Your task to perform on an android device: Show the shopping cart on newegg.com. Image 0: 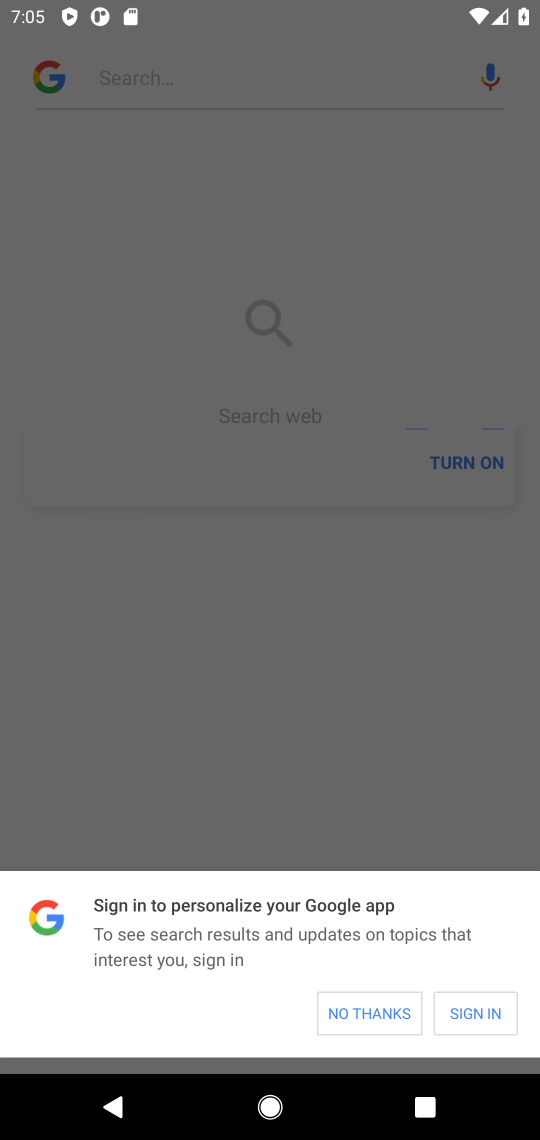
Step 0: click (352, 1010)
Your task to perform on an android device: Show the shopping cart on newegg.com. Image 1: 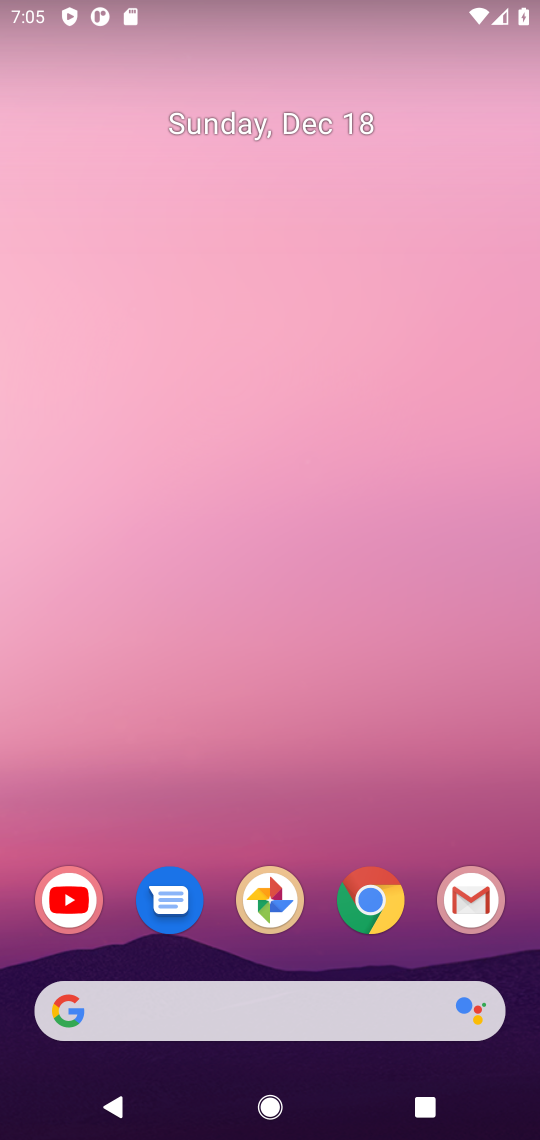
Step 1: click (370, 891)
Your task to perform on an android device: Show the shopping cart on newegg.com. Image 2: 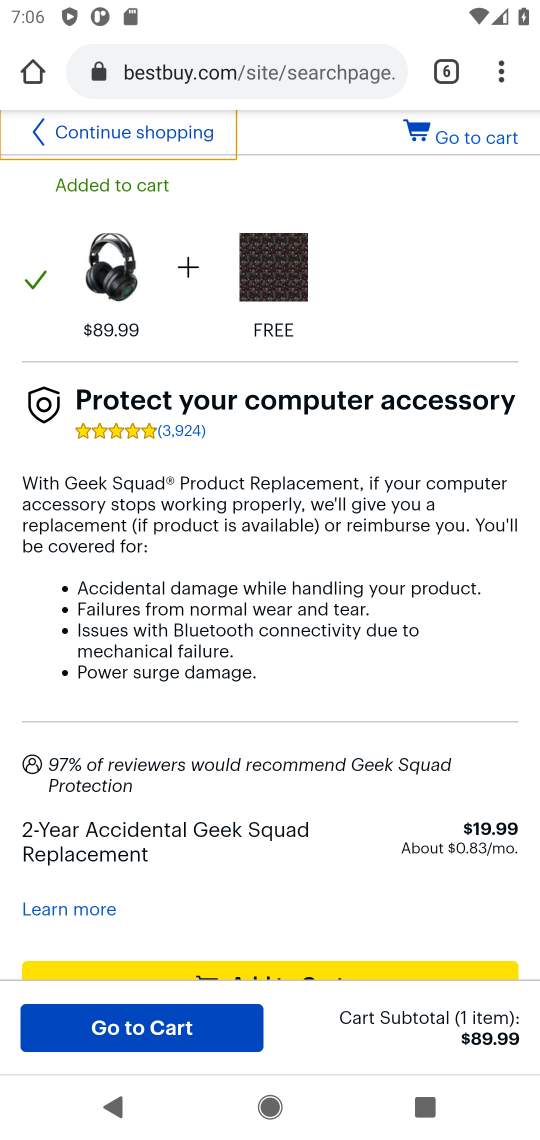
Step 2: click (445, 64)
Your task to perform on an android device: Show the shopping cart on newegg.com. Image 3: 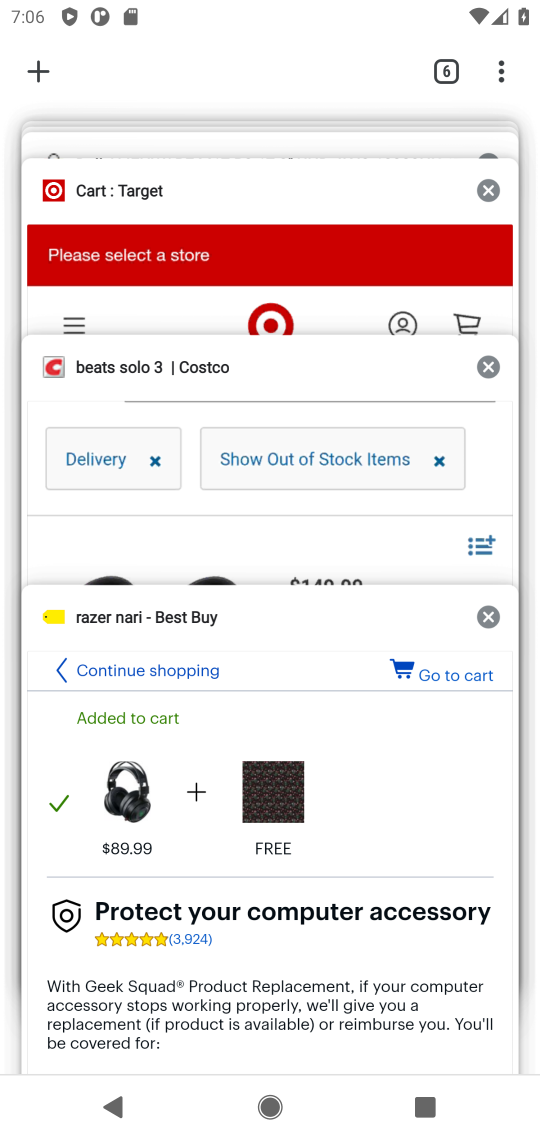
Step 3: drag from (211, 145) to (185, 556)
Your task to perform on an android device: Show the shopping cart on newegg.com. Image 4: 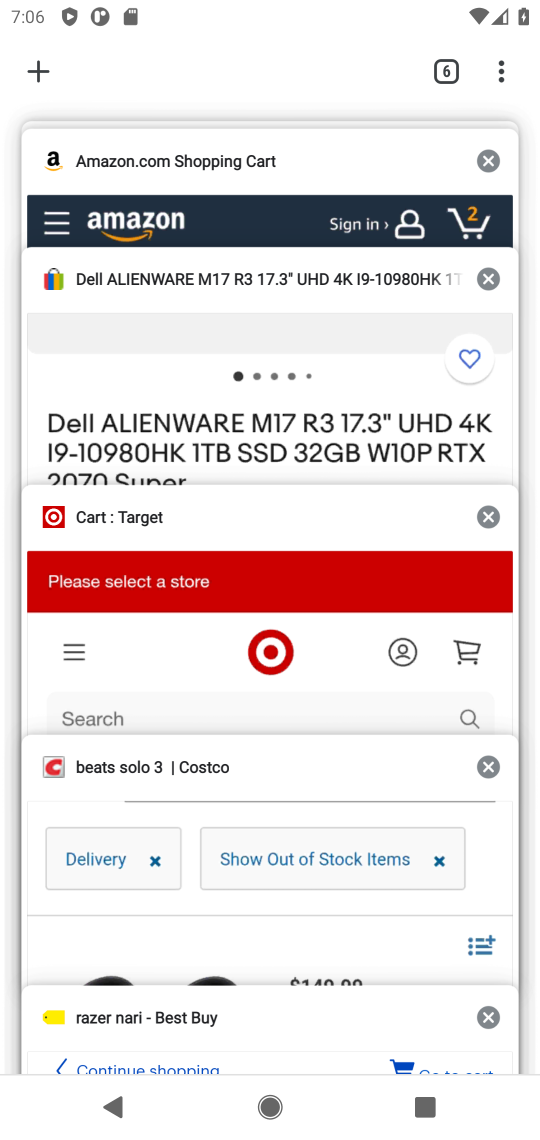
Step 4: drag from (222, 180) to (212, 613)
Your task to perform on an android device: Show the shopping cart on newegg.com. Image 5: 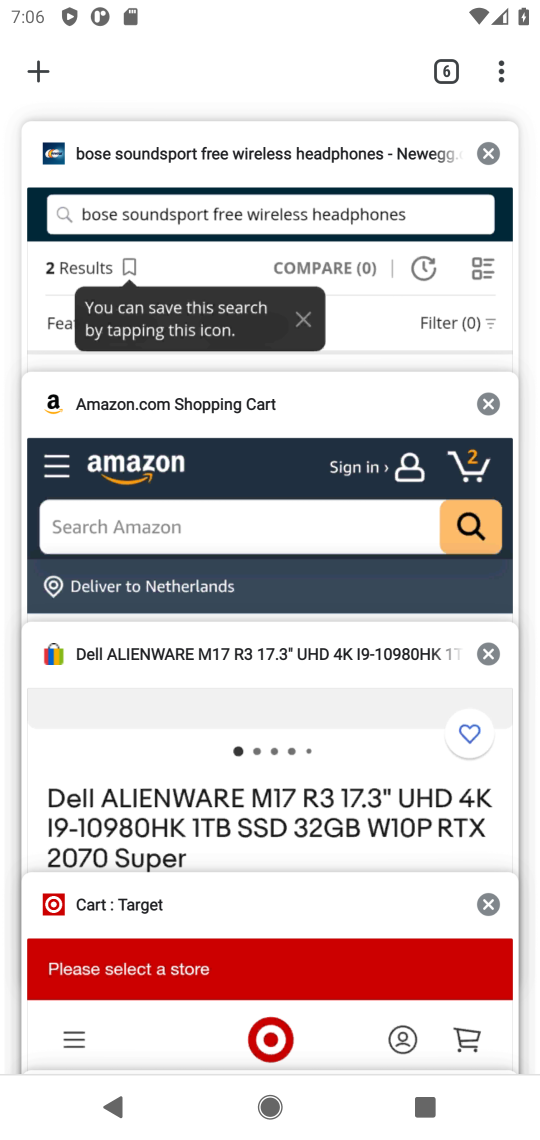
Step 5: click (221, 206)
Your task to perform on an android device: Show the shopping cart on newegg.com. Image 6: 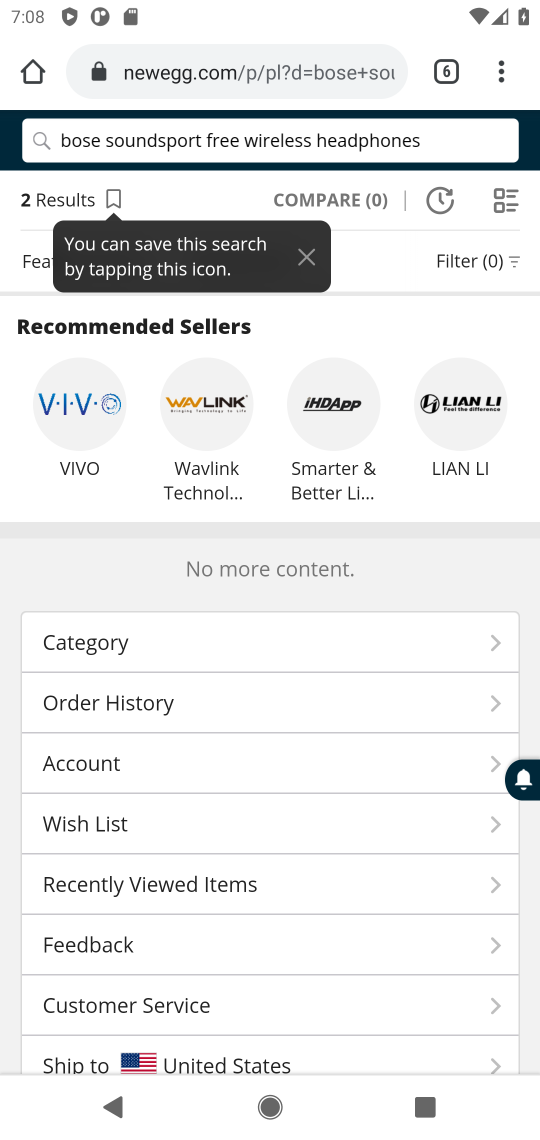
Step 6: drag from (398, 283) to (375, 899)
Your task to perform on an android device: Show the shopping cart on newegg.com. Image 7: 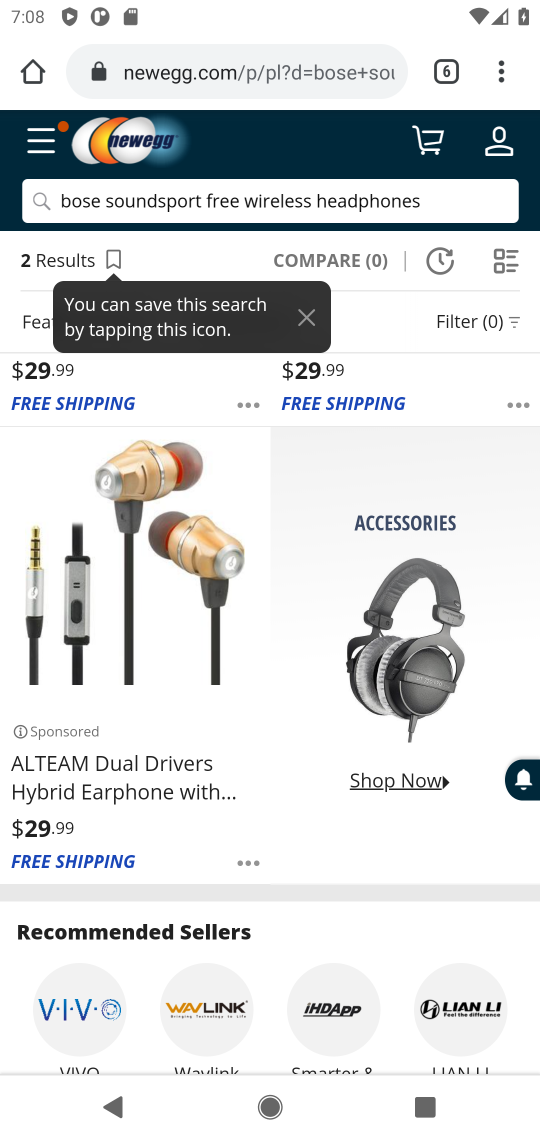
Step 7: click (425, 136)
Your task to perform on an android device: Show the shopping cart on newegg.com. Image 8: 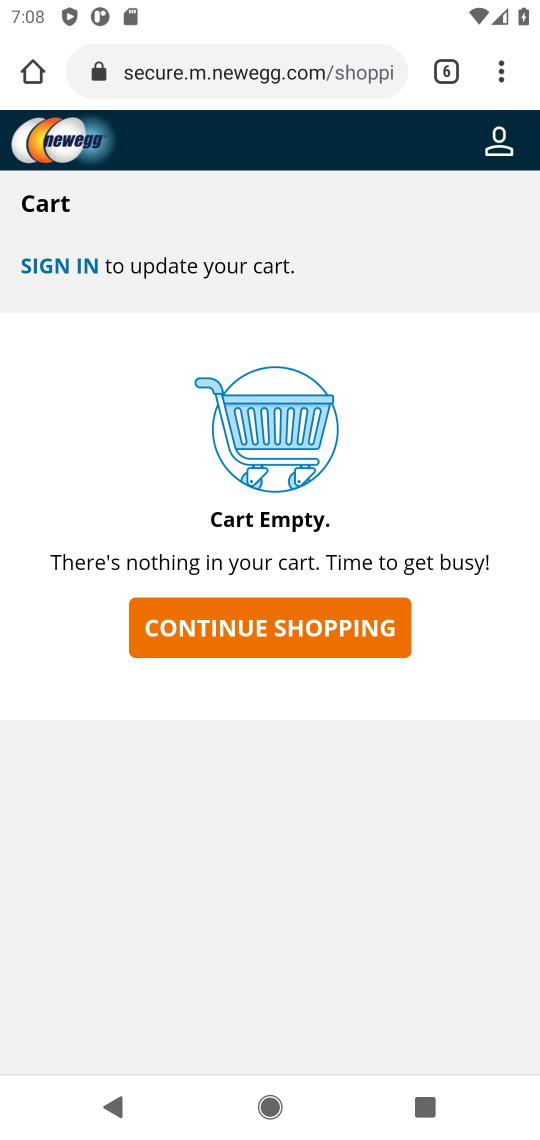
Step 8: task complete